Your task to perform on an android device: open chrome and create a bookmark for the current page Image 0: 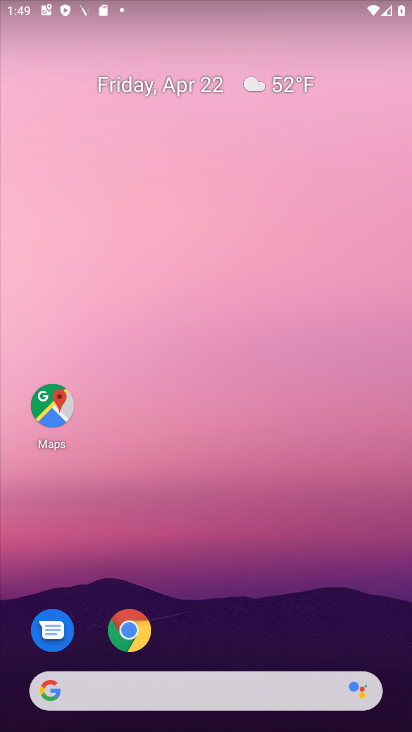
Step 0: click (125, 622)
Your task to perform on an android device: open chrome and create a bookmark for the current page Image 1: 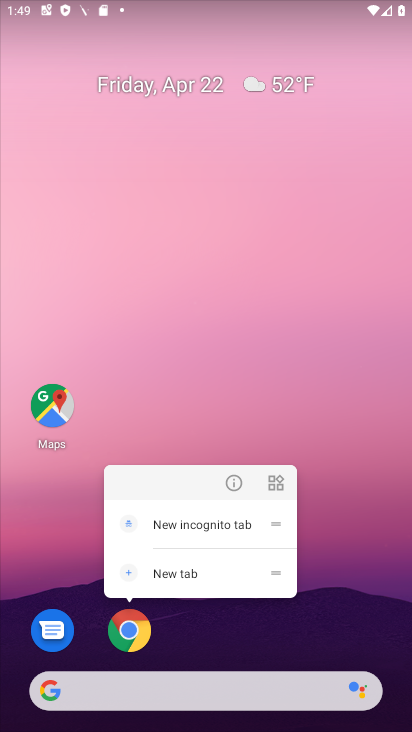
Step 1: click (125, 623)
Your task to perform on an android device: open chrome and create a bookmark for the current page Image 2: 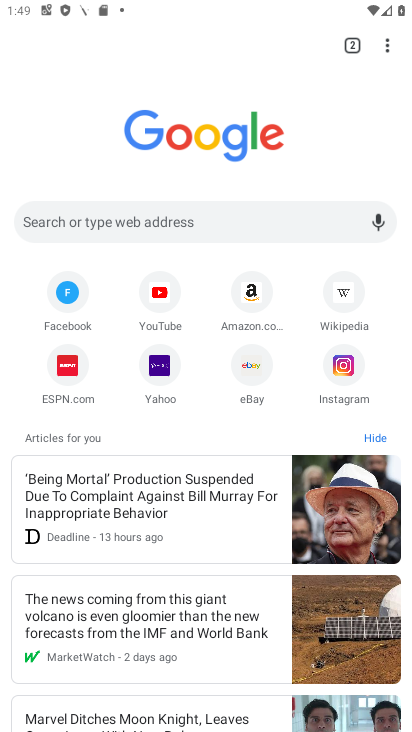
Step 2: click (386, 40)
Your task to perform on an android device: open chrome and create a bookmark for the current page Image 3: 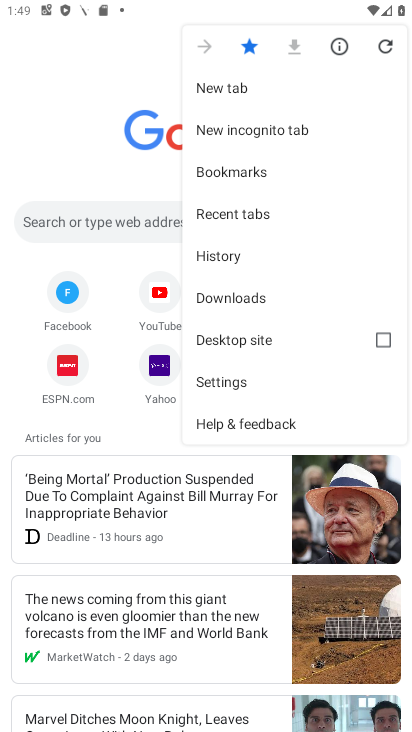
Step 3: click (226, 375)
Your task to perform on an android device: open chrome and create a bookmark for the current page Image 4: 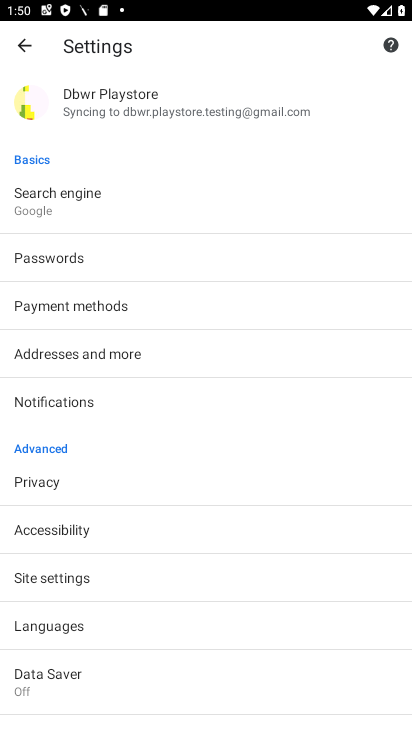
Step 4: click (17, 38)
Your task to perform on an android device: open chrome and create a bookmark for the current page Image 5: 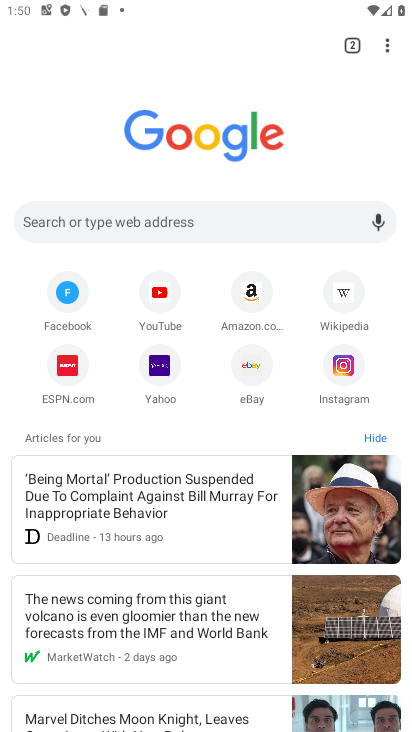
Step 5: click (384, 41)
Your task to perform on an android device: open chrome and create a bookmark for the current page Image 6: 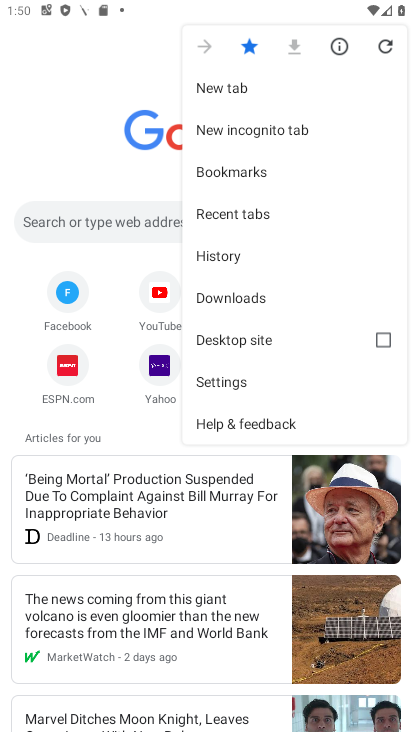
Step 6: click (219, 164)
Your task to perform on an android device: open chrome and create a bookmark for the current page Image 7: 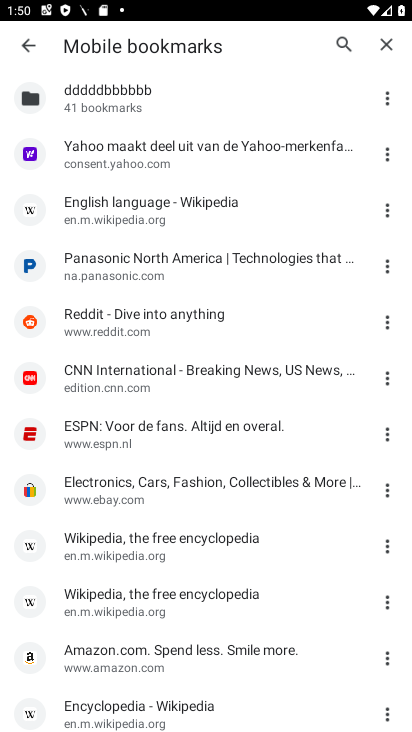
Step 7: click (101, 372)
Your task to perform on an android device: open chrome and create a bookmark for the current page Image 8: 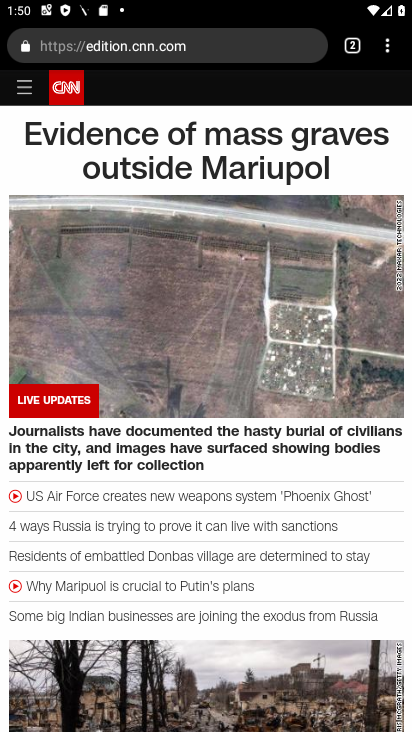
Step 8: task complete